Your task to perform on an android device: toggle translation in the chrome app Image 0: 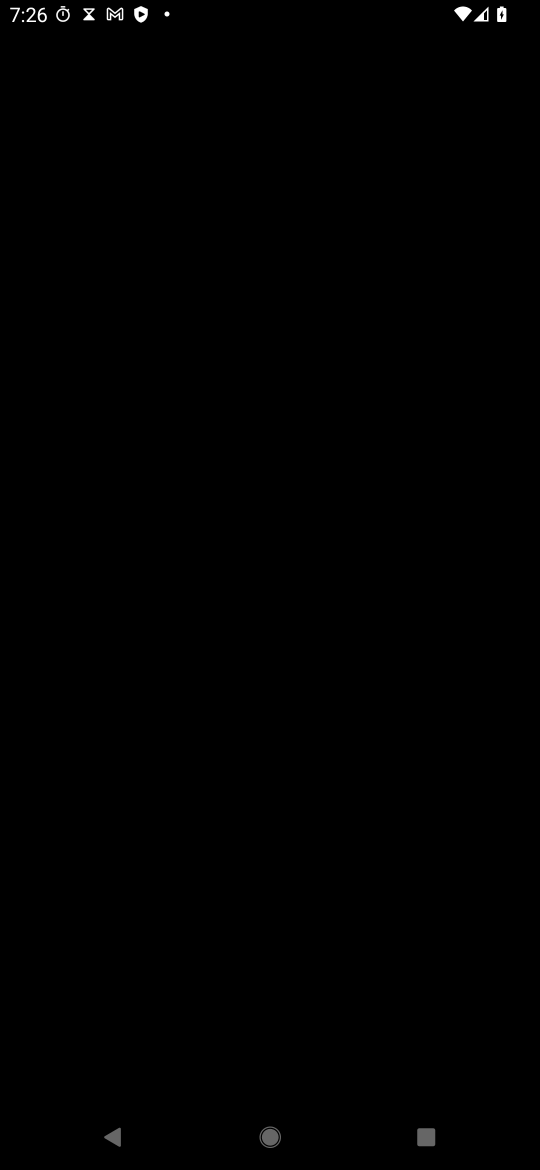
Step 0: press home button
Your task to perform on an android device: toggle translation in the chrome app Image 1: 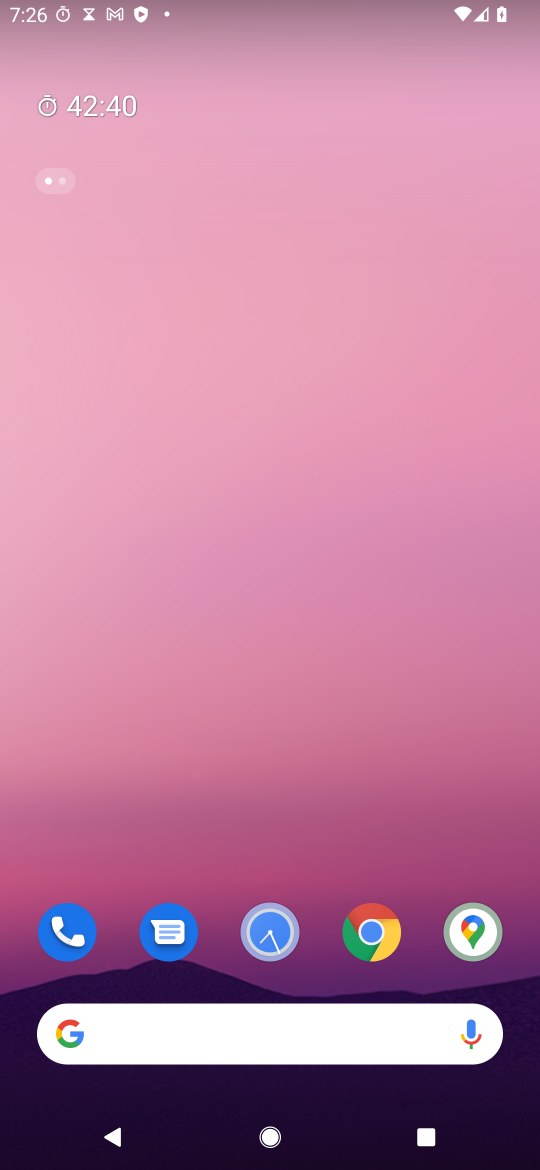
Step 1: drag from (281, 860) to (383, 17)
Your task to perform on an android device: toggle translation in the chrome app Image 2: 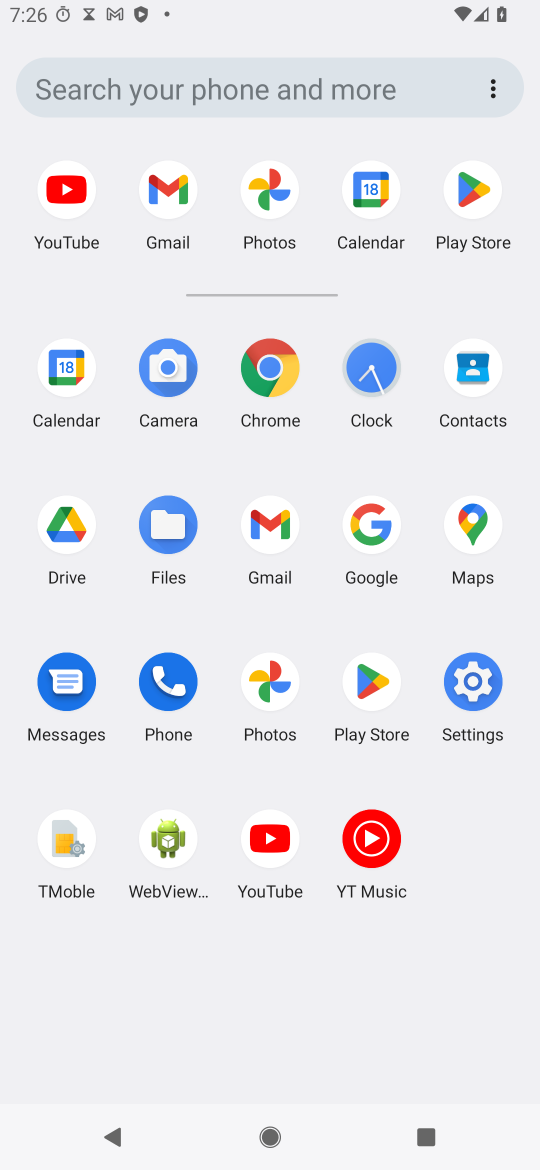
Step 2: click (252, 363)
Your task to perform on an android device: toggle translation in the chrome app Image 3: 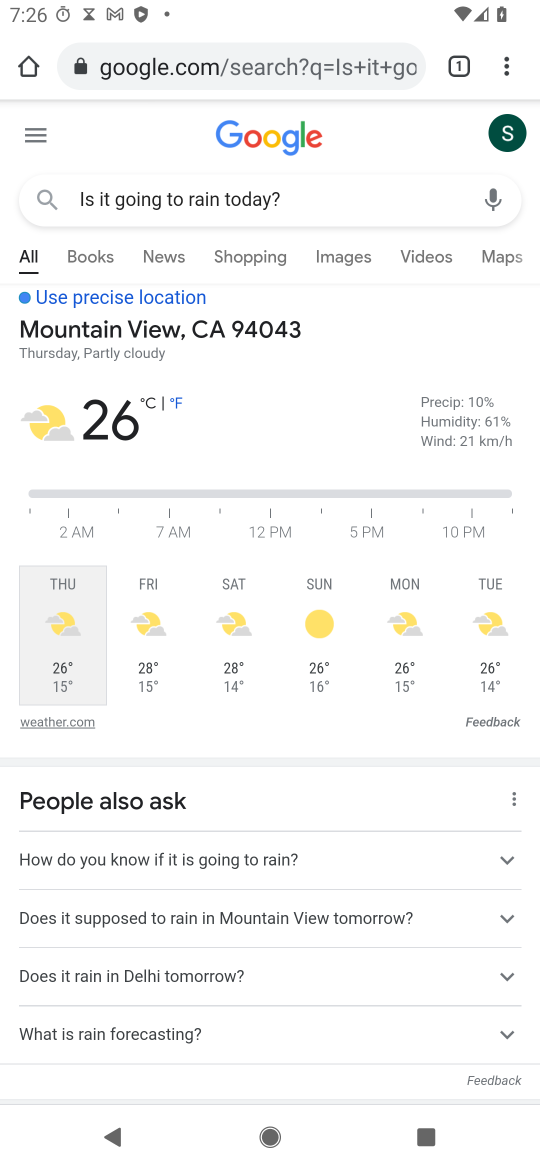
Step 3: drag from (502, 61) to (361, 869)
Your task to perform on an android device: toggle translation in the chrome app Image 4: 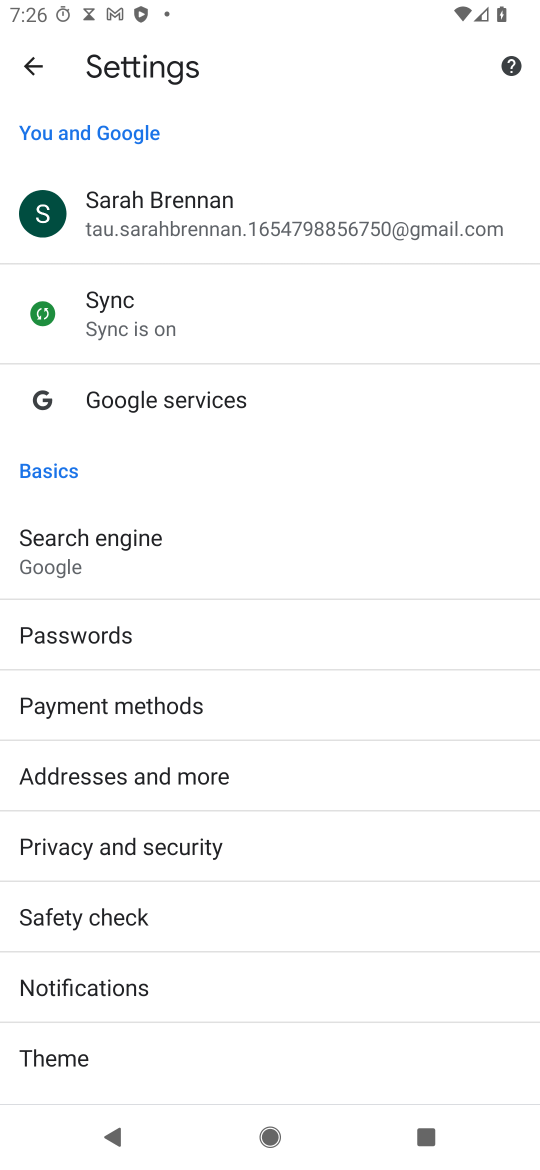
Step 4: drag from (386, 862) to (328, 314)
Your task to perform on an android device: toggle translation in the chrome app Image 5: 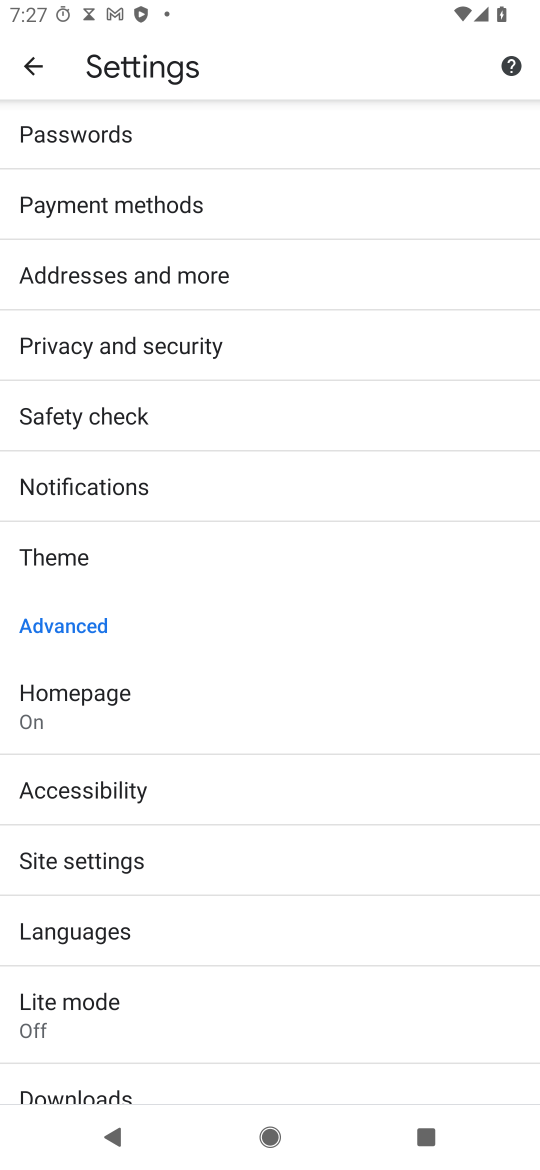
Step 5: drag from (151, 1017) to (115, 445)
Your task to perform on an android device: toggle translation in the chrome app Image 6: 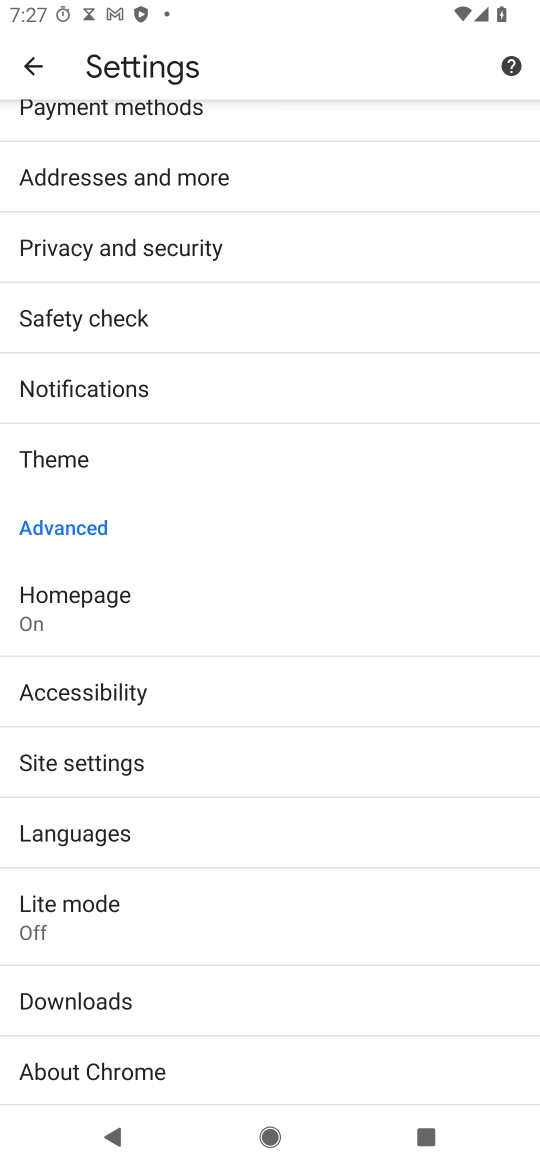
Step 6: click (95, 826)
Your task to perform on an android device: toggle translation in the chrome app Image 7: 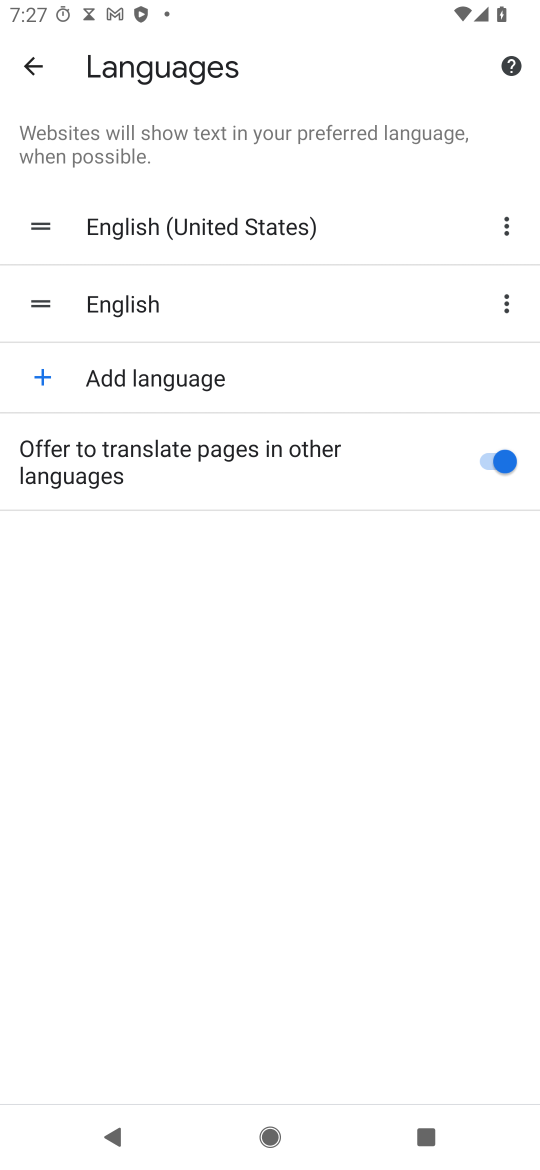
Step 7: click (337, 455)
Your task to perform on an android device: toggle translation in the chrome app Image 8: 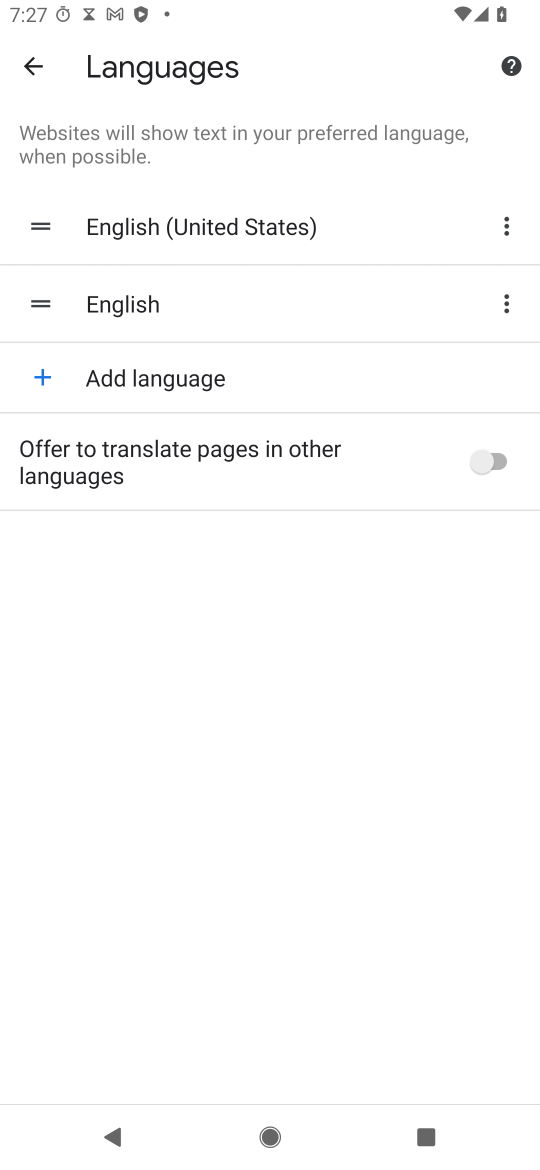
Step 8: task complete